Your task to perform on an android device: move an email to a new category in the gmail app Image 0: 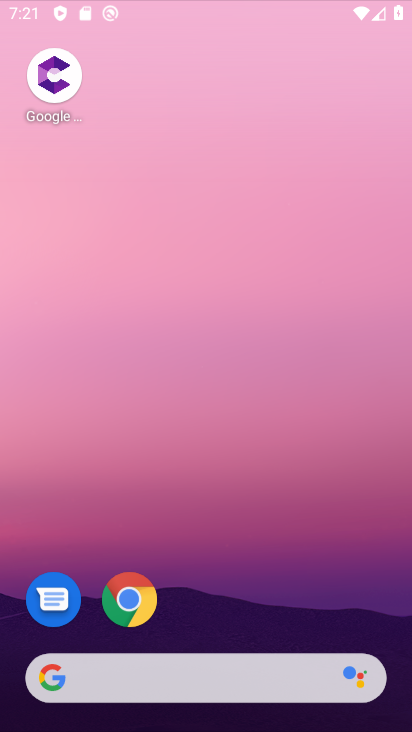
Step 0: click (286, 328)
Your task to perform on an android device: move an email to a new category in the gmail app Image 1: 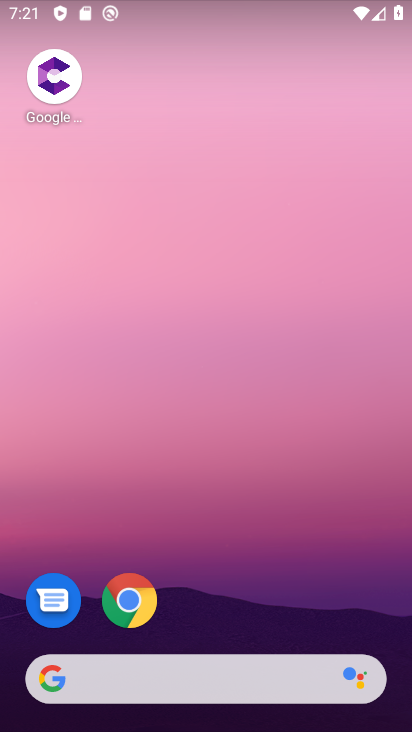
Step 1: drag from (212, 624) to (224, 207)
Your task to perform on an android device: move an email to a new category in the gmail app Image 2: 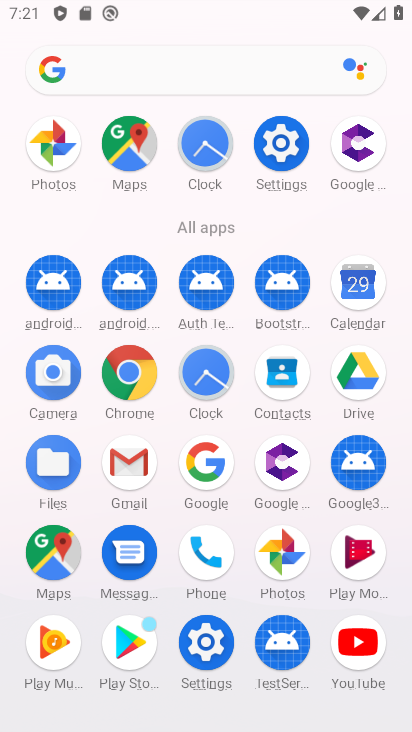
Step 2: click (138, 455)
Your task to perform on an android device: move an email to a new category in the gmail app Image 3: 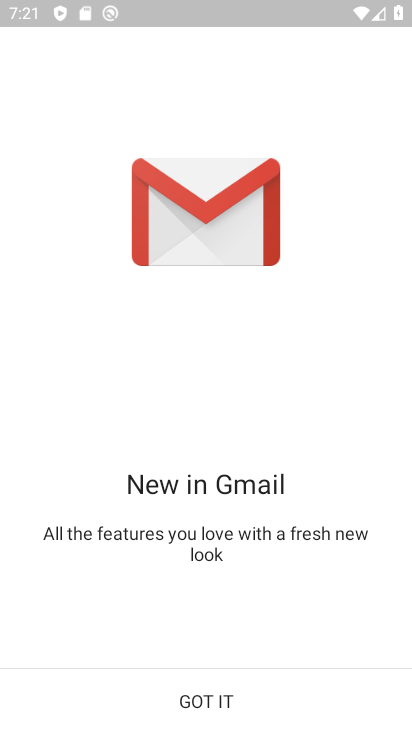
Step 3: click (197, 698)
Your task to perform on an android device: move an email to a new category in the gmail app Image 4: 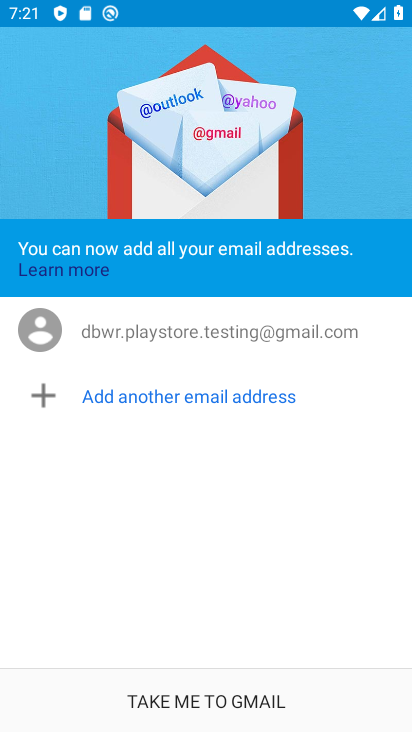
Step 4: click (199, 696)
Your task to perform on an android device: move an email to a new category in the gmail app Image 5: 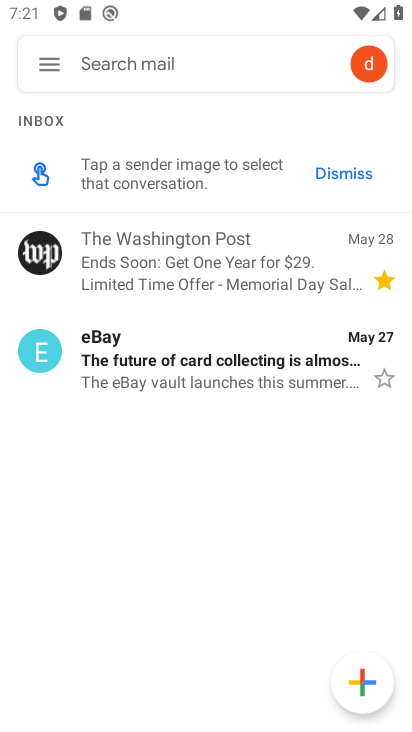
Step 5: click (33, 245)
Your task to perform on an android device: move an email to a new category in the gmail app Image 6: 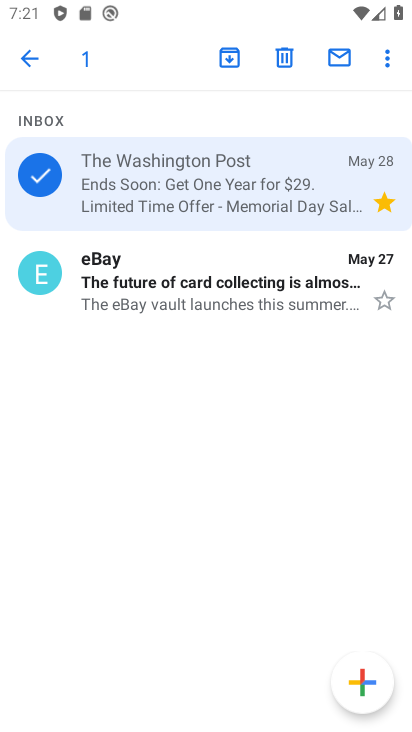
Step 6: click (388, 53)
Your task to perform on an android device: move an email to a new category in the gmail app Image 7: 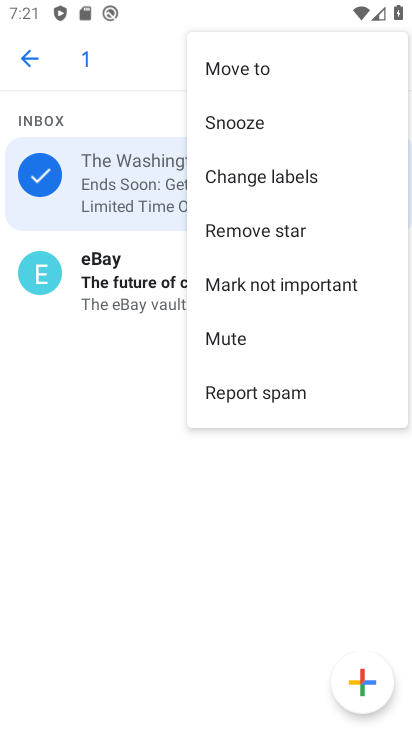
Step 7: click (264, 71)
Your task to perform on an android device: move an email to a new category in the gmail app Image 8: 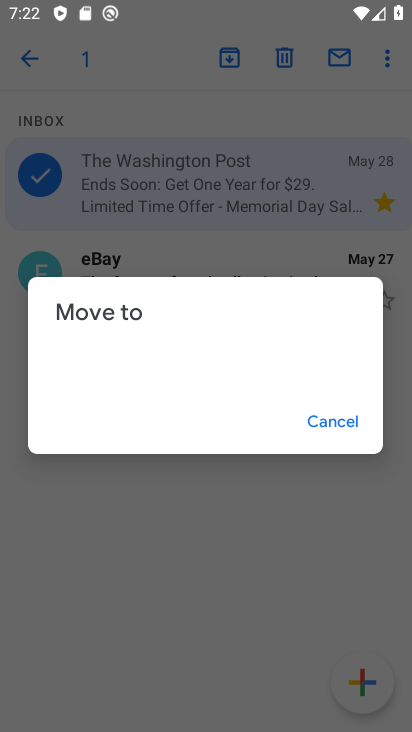
Step 8: click (292, 358)
Your task to perform on an android device: move an email to a new category in the gmail app Image 9: 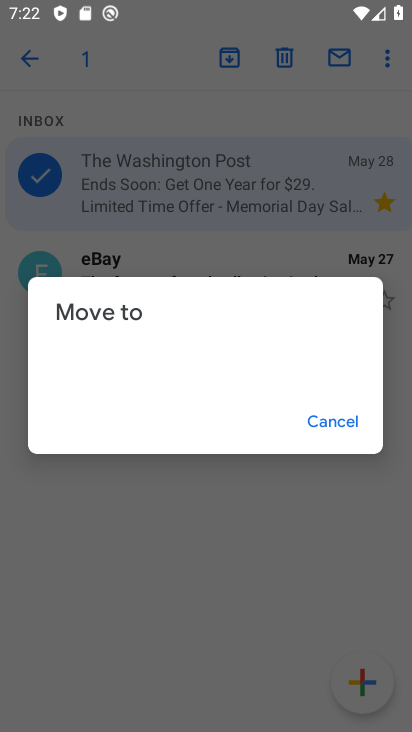
Step 9: click (325, 421)
Your task to perform on an android device: move an email to a new category in the gmail app Image 10: 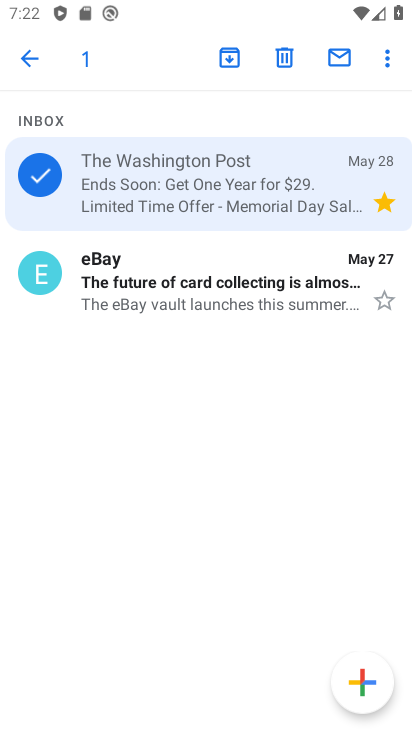
Step 10: click (231, 61)
Your task to perform on an android device: move an email to a new category in the gmail app Image 11: 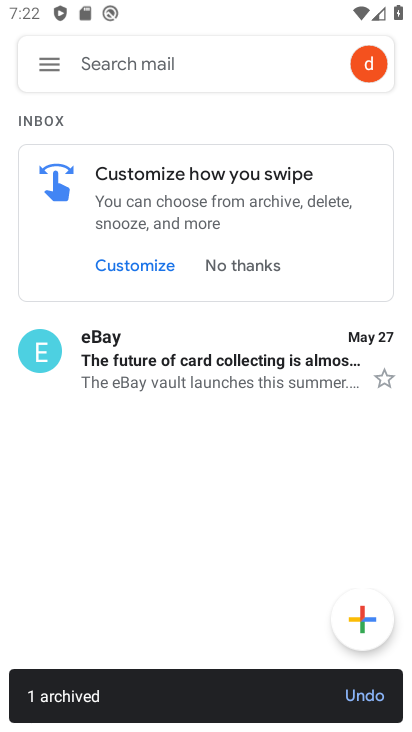
Step 11: click (376, 696)
Your task to perform on an android device: move an email to a new category in the gmail app Image 12: 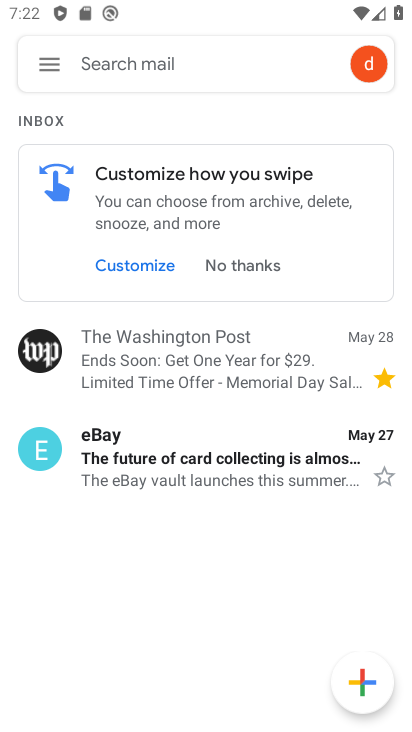
Step 12: click (386, 477)
Your task to perform on an android device: move an email to a new category in the gmail app Image 13: 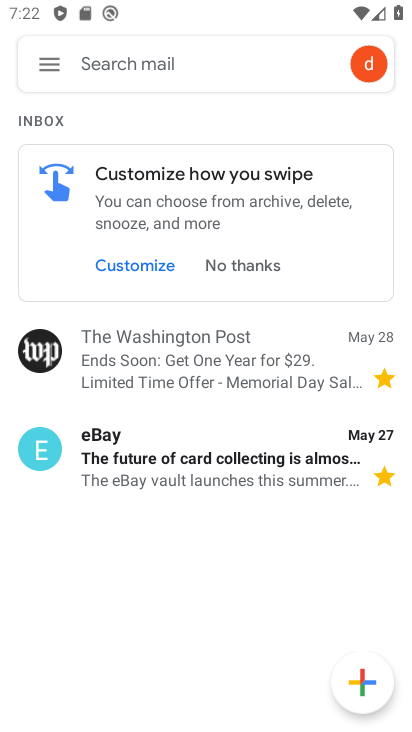
Step 13: task complete